Your task to perform on an android device: Turn off the flashlight Image 0: 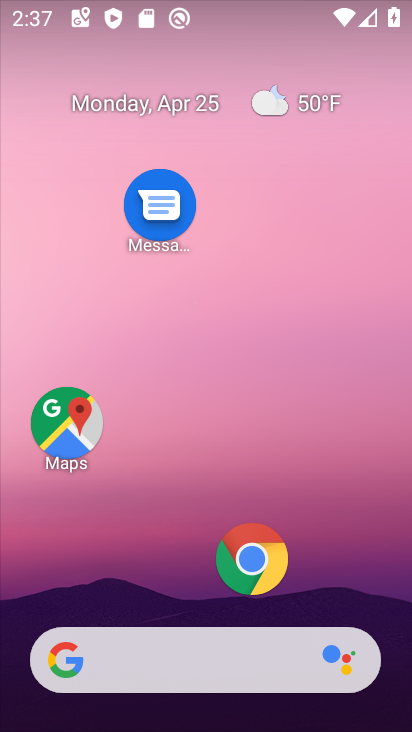
Step 0: drag from (166, 596) to (273, 26)
Your task to perform on an android device: Turn off the flashlight Image 1: 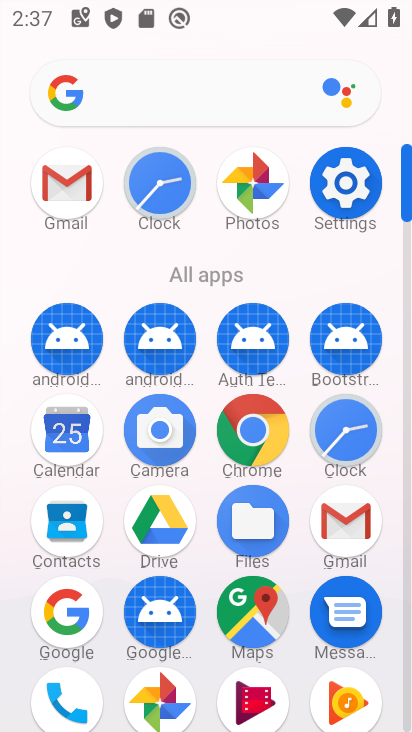
Step 1: click (348, 180)
Your task to perform on an android device: Turn off the flashlight Image 2: 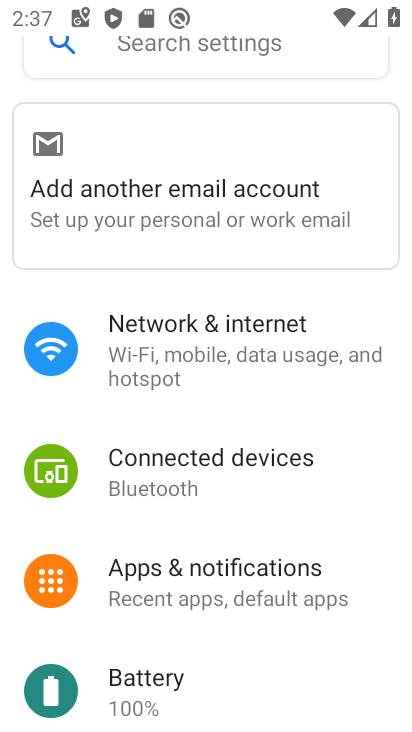
Step 2: drag from (272, 79) to (260, 512)
Your task to perform on an android device: Turn off the flashlight Image 3: 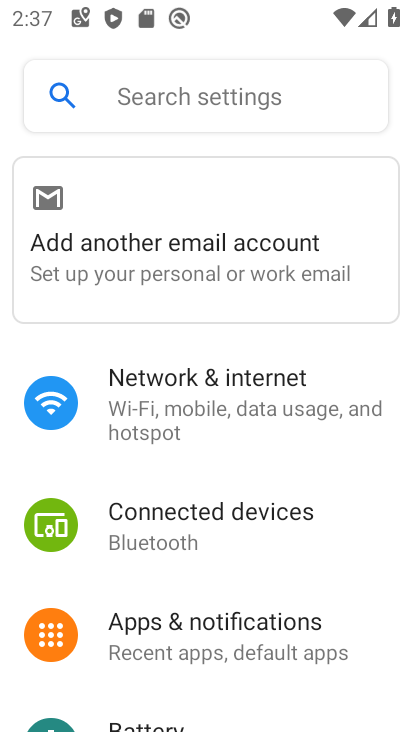
Step 3: click (232, 99)
Your task to perform on an android device: Turn off the flashlight Image 4: 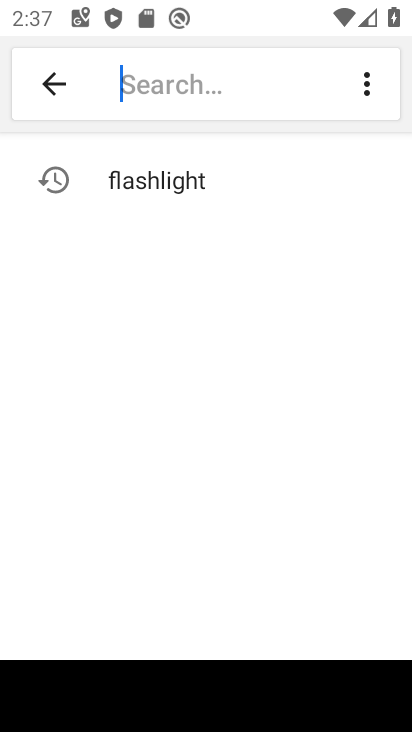
Step 4: type "flashlight"
Your task to perform on an android device: Turn off the flashlight Image 5: 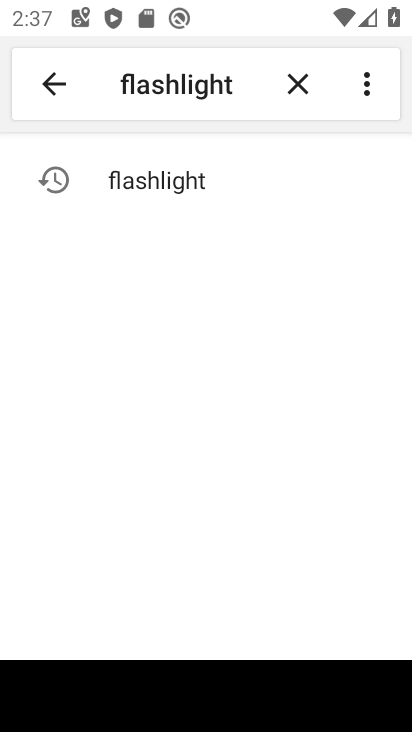
Step 5: click (188, 173)
Your task to perform on an android device: Turn off the flashlight Image 6: 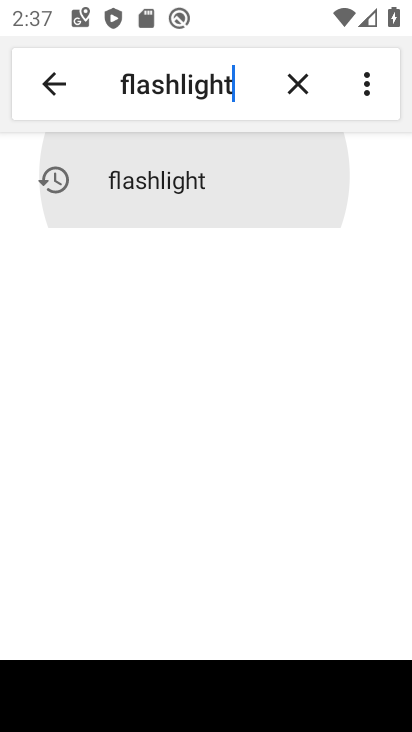
Step 6: click (188, 173)
Your task to perform on an android device: Turn off the flashlight Image 7: 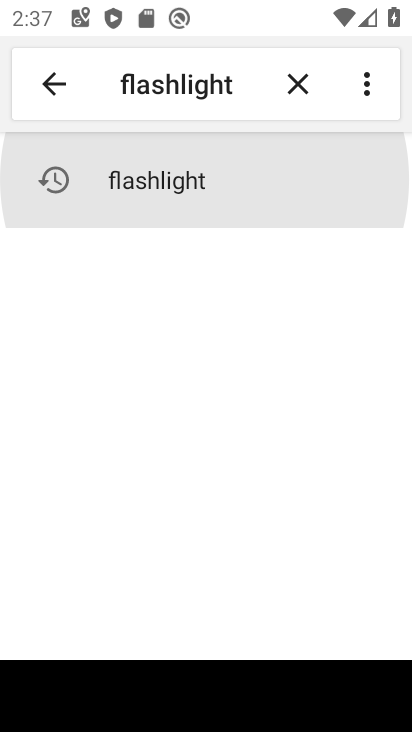
Step 7: click (189, 174)
Your task to perform on an android device: Turn off the flashlight Image 8: 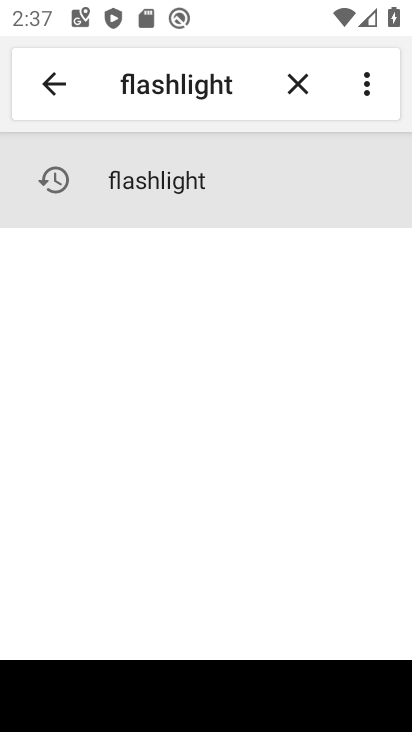
Step 8: click (194, 214)
Your task to perform on an android device: Turn off the flashlight Image 9: 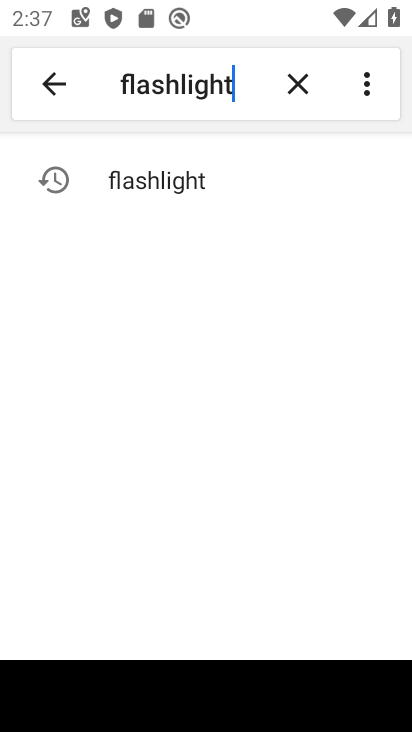
Step 9: click (174, 242)
Your task to perform on an android device: Turn off the flashlight Image 10: 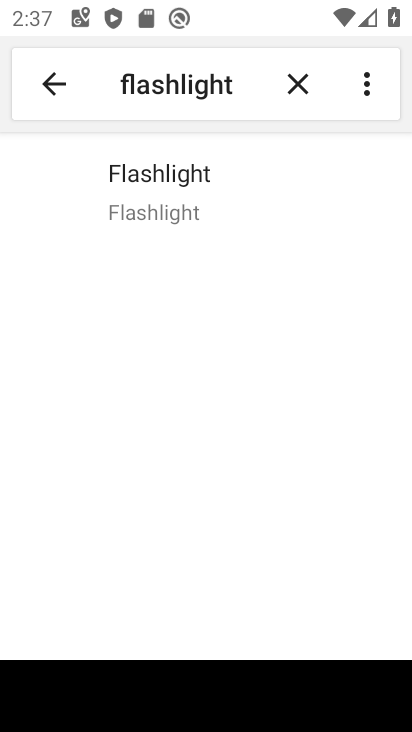
Step 10: task complete